Your task to perform on an android device: Open display settings Image 0: 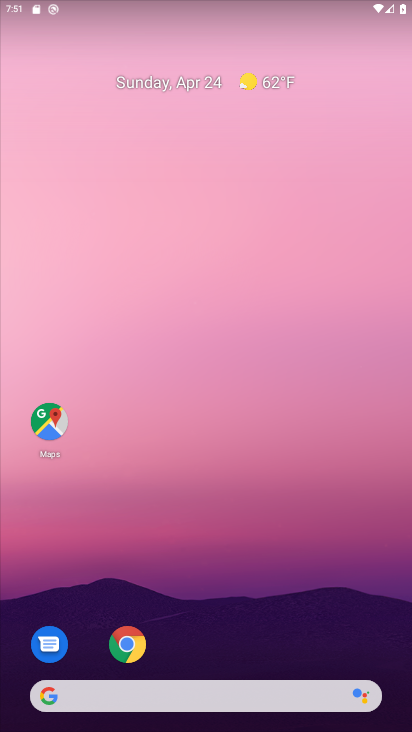
Step 0: press home button
Your task to perform on an android device: Open display settings Image 1: 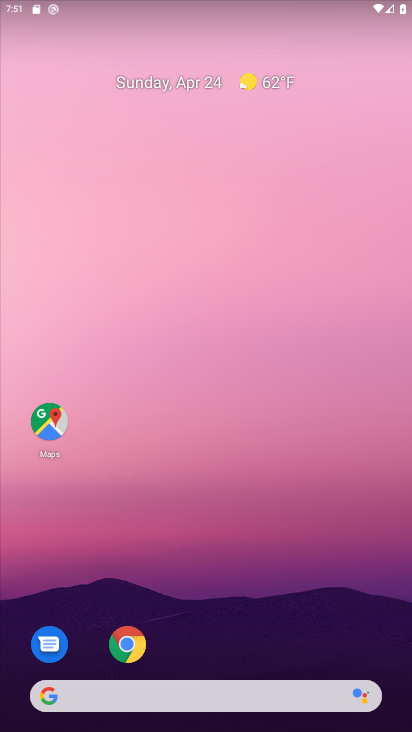
Step 1: drag from (216, 662) to (227, 93)
Your task to perform on an android device: Open display settings Image 2: 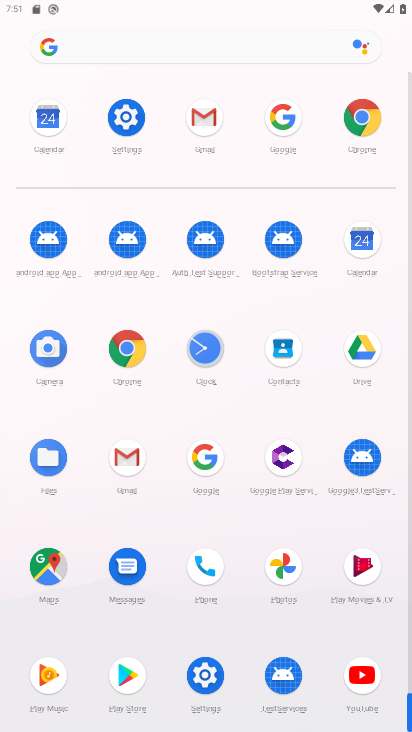
Step 2: click (205, 672)
Your task to perform on an android device: Open display settings Image 3: 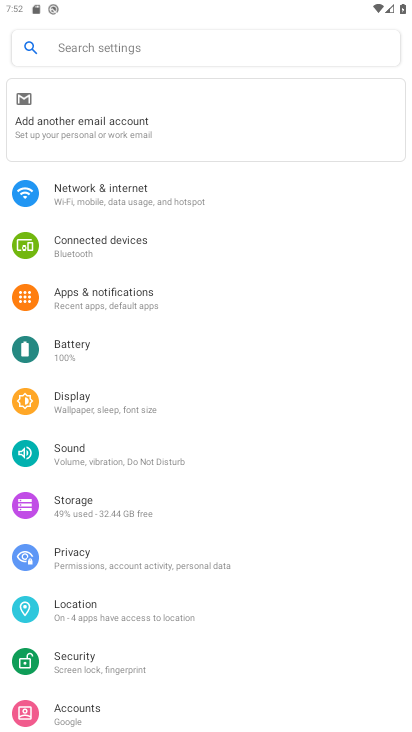
Step 3: click (104, 394)
Your task to perform on an android device: Open display settings Image 4: 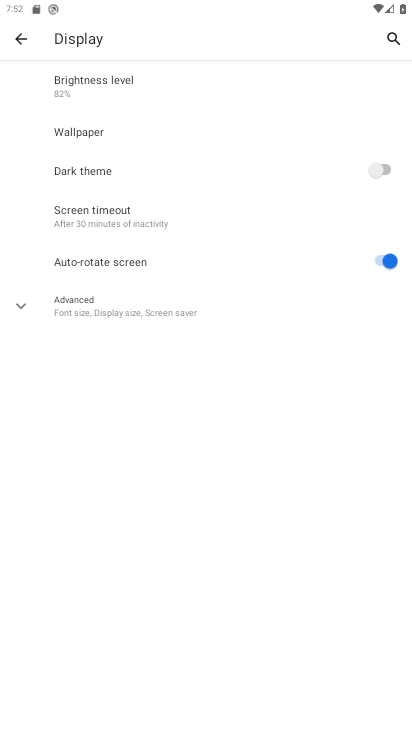
Step 4: click (20, 297)
Your task to perform on an android device: Open display settings Image 5: 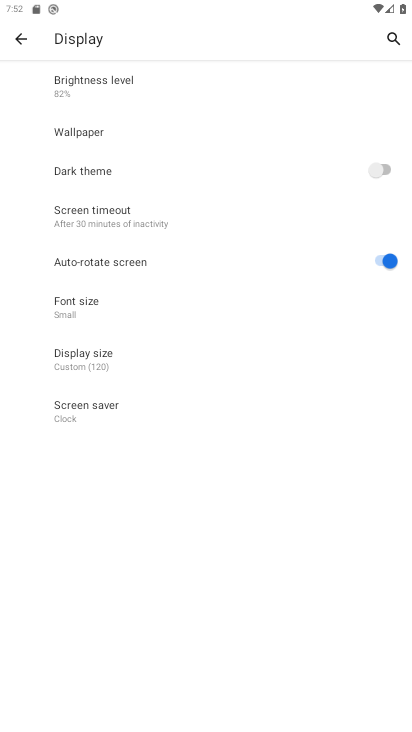
Step 5: task complete